Your task to perform on an android device: Open Chrome and go to settings Image 0: 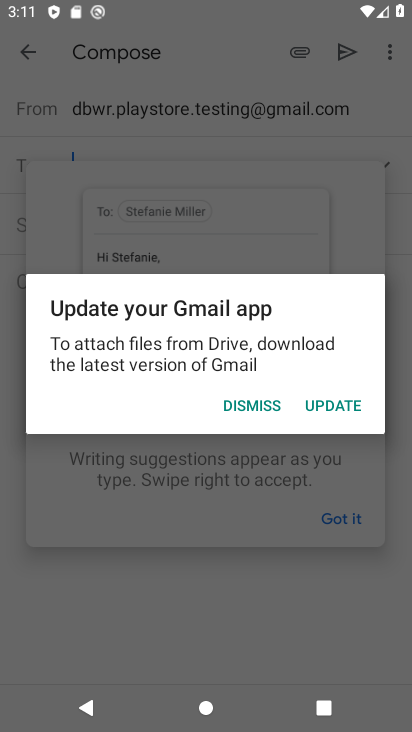
Step 0: press home button
Your task to perform on an android device: Open Chrome and go to settings Image 1: 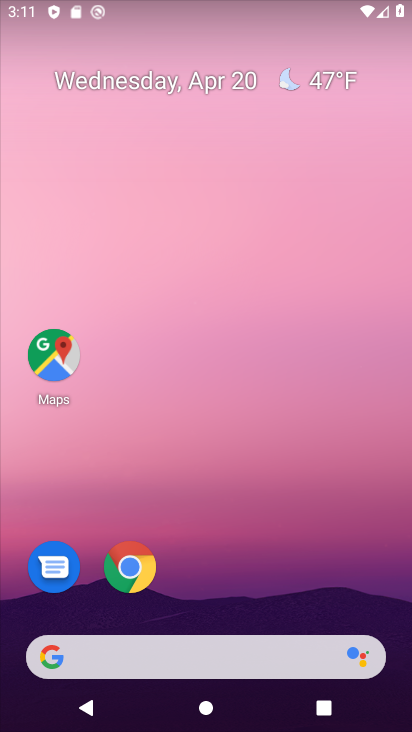
Step 1: drag from (312, 542) to (290, 13)
Your task to perform on an android device: Open Chrome and go to settings Image 2: 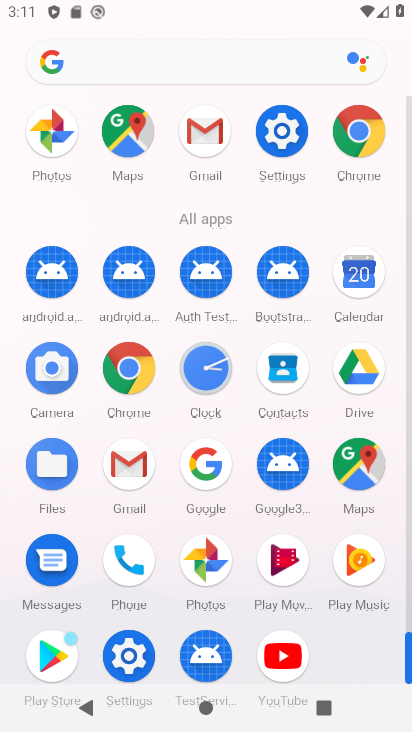
Step 2: drag from (9, 521) to (10, 268)
Your task to perform on an android device: Open Chrome and go to settings Image 3: 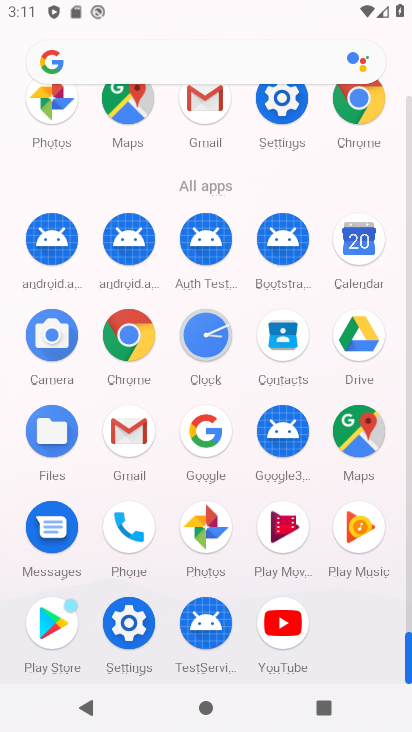
Step 3: drag from (18, 127) to (2, 411)
Your task to perform on an android device: Open Chrome and go to settings Image 4: 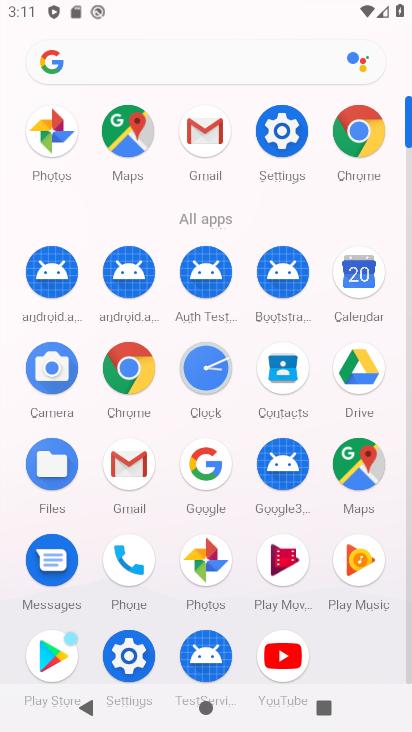
Step 4: click (360, 127)
Your task to perform on an android device: Open Chrome and go to settings Image 5: 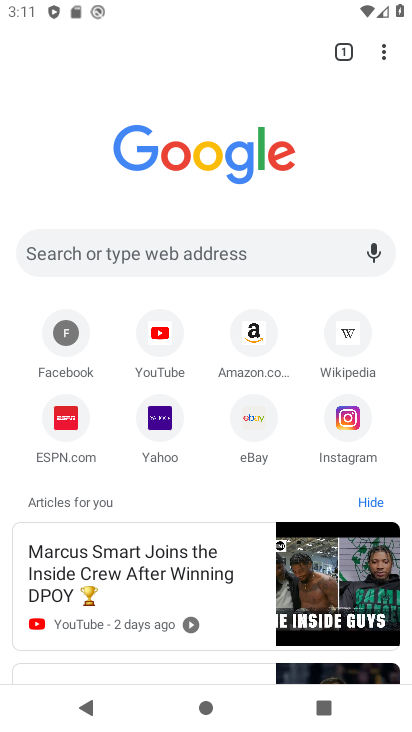
Step 5: task complete